Your task to perform on an android device: toggle location history Image 0: 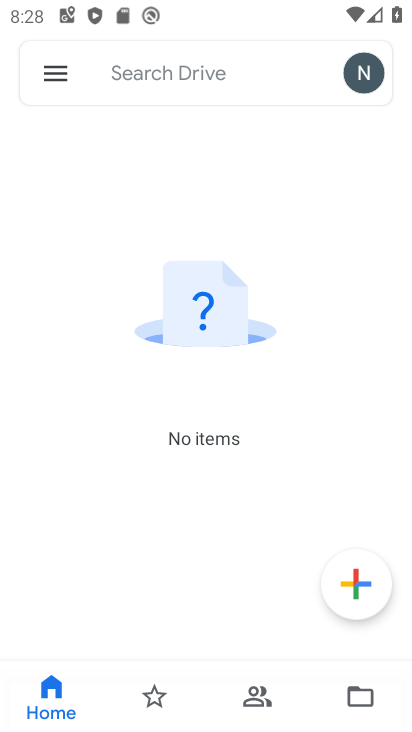
Step 0: press home button
Your task to perform on an android device: toggle location history Image 1: 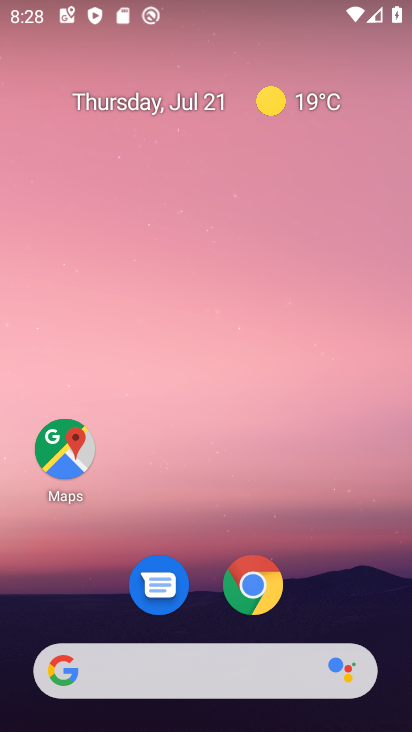
Step 1: drag from (340, 575) to (311, 38)
Your task to perform on an android device: toggle location history Image 2: 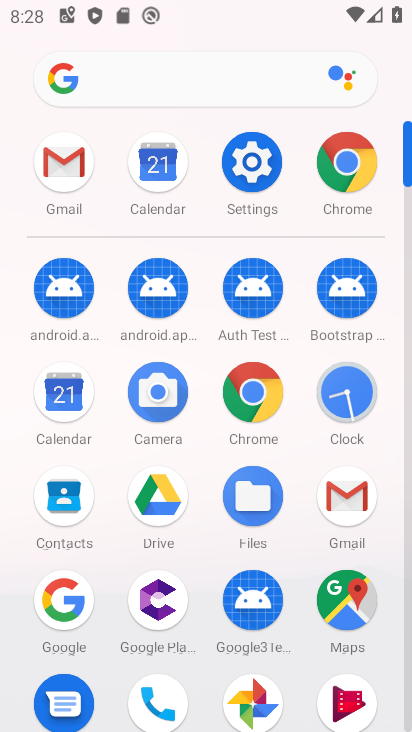
Step 2: click (265, 163)
Your task to perform on an android device: toggle location history Image 3: 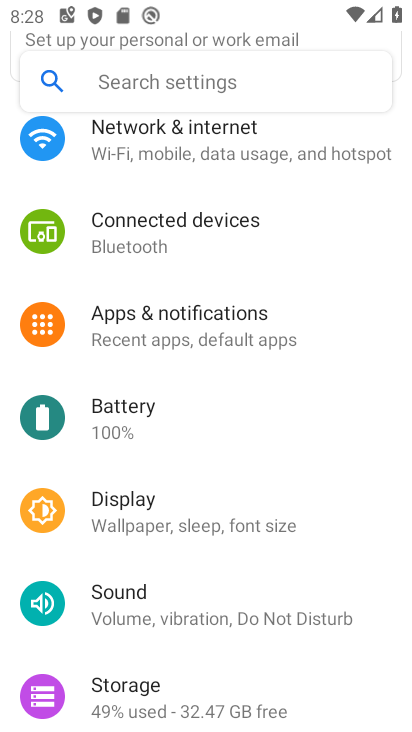
Step 3: drag from (204, 588) to (221, 172)
Your task to perform on an android device: toggle location history Image 4: 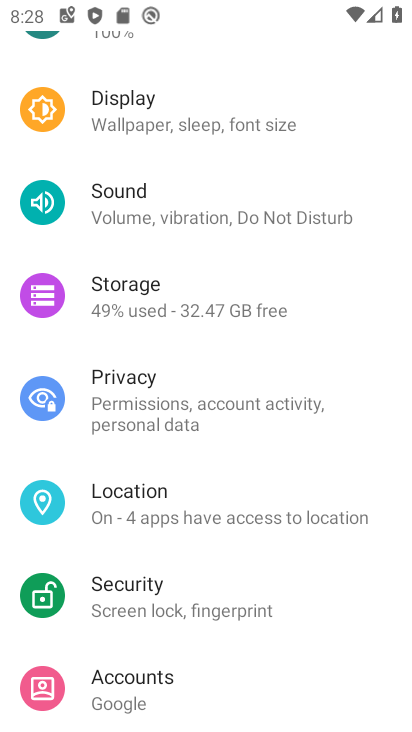
Step 4: click (188, 499)
Your task to perform on an android device: toggle location history Image 5: 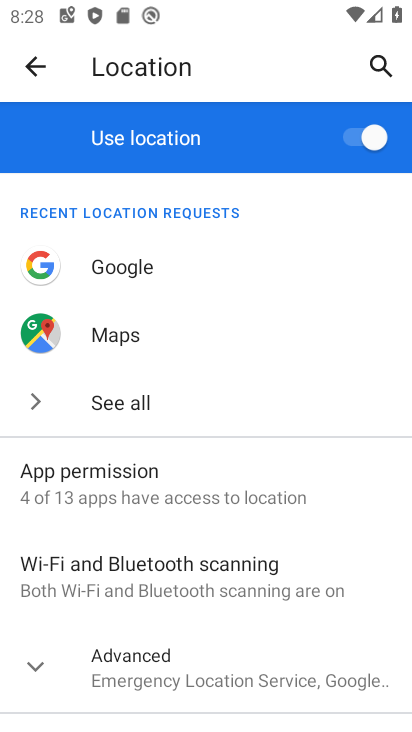
Step 5: click (30, 658)
Your task to perform on an android device: toggle location history Image 6: 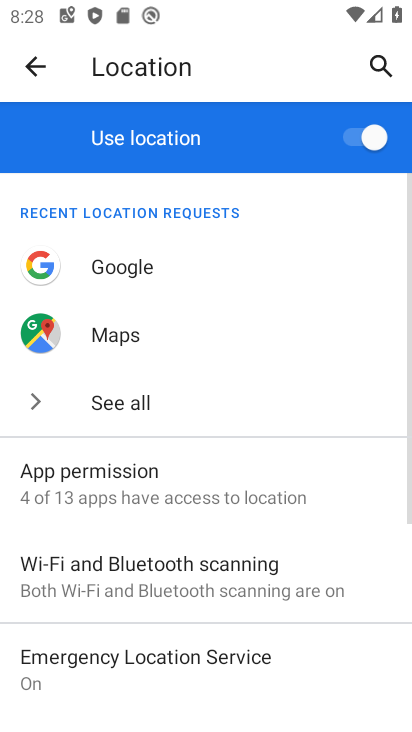
Step 6: drag from (235, 515) to (261, 207)
Your task to perform on an android device: toggle location history Image 7: 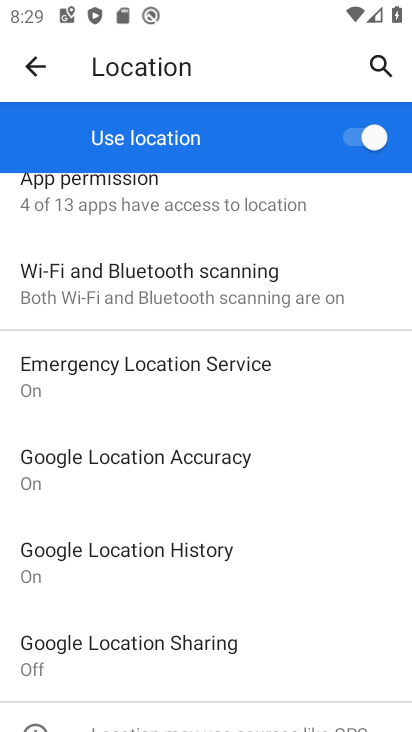
Step 7: click (187, 550)
Your task to perform on an android device: toggle location history Image 8: 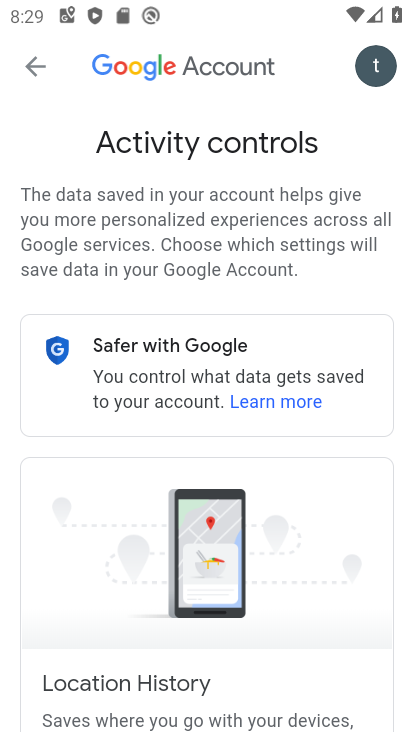
Step 8: drag from (333, 518) to (328, 479)
Your task to perform on an android device: toggle location history Image 9: 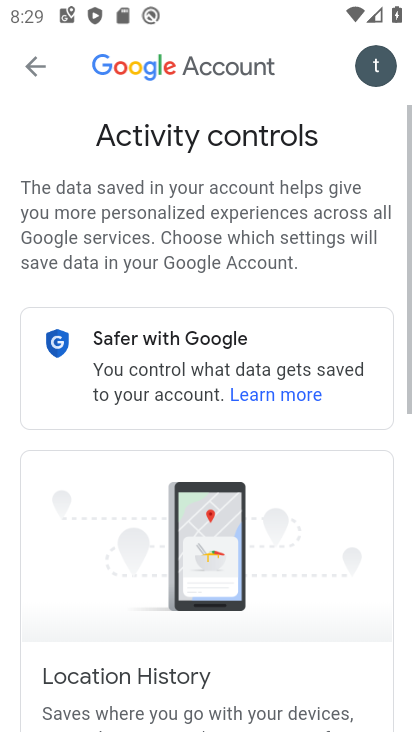
Step 9: drag from (329, 398) to (316, 230)
Your task to perform on an android device: toggle location history Image 10: 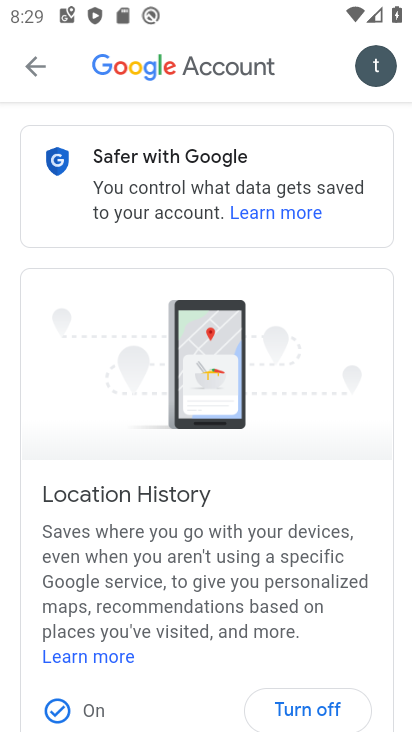
Step 10: drag from (207, 541) to (209, 306)
Your task to perform on an android device: toggle location history Image 11: 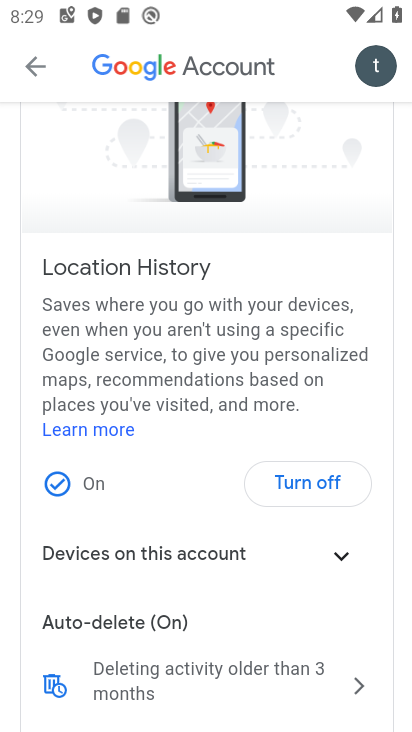
Step 11: click (285, 481)
Your task to perform on an android device: toggle location history Image 12: 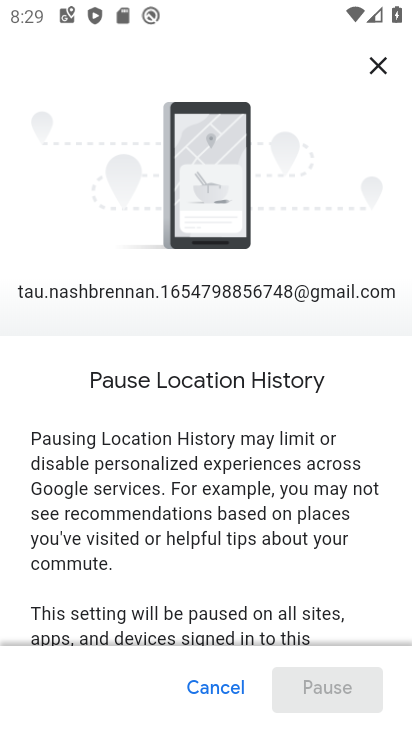
Step 12: drag from (250, 578) to (254, 25)
Your task to perform on an android device: toggle location history Image 13: 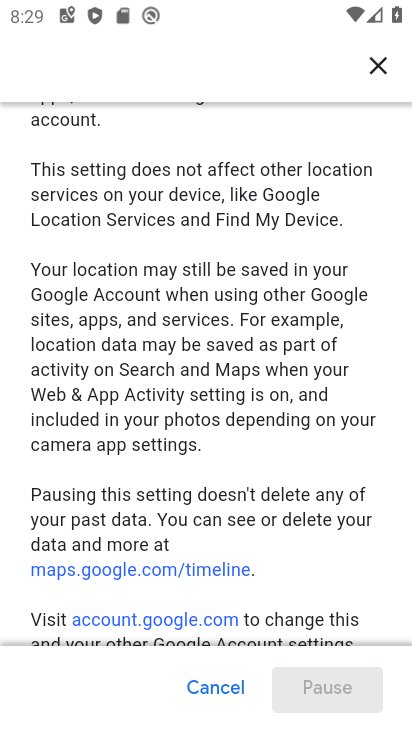
Step 13: drag from (279, 468) to (300, 160)
Your task to perform on an android device: toggle location history Image 14: 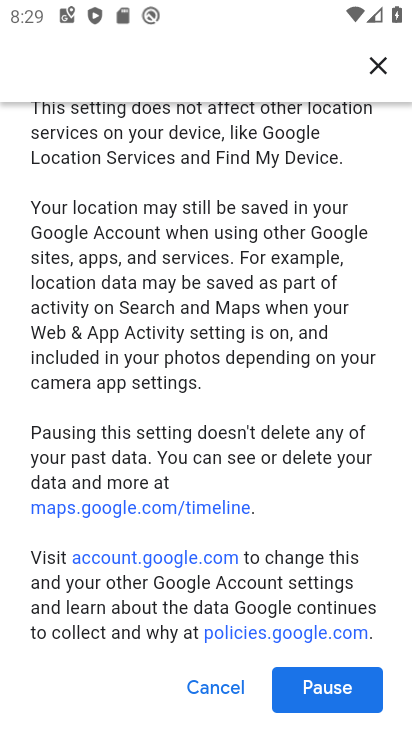
Step 14: click (351, 679)
Your task to perform on an android device: toggle location history Image 15: 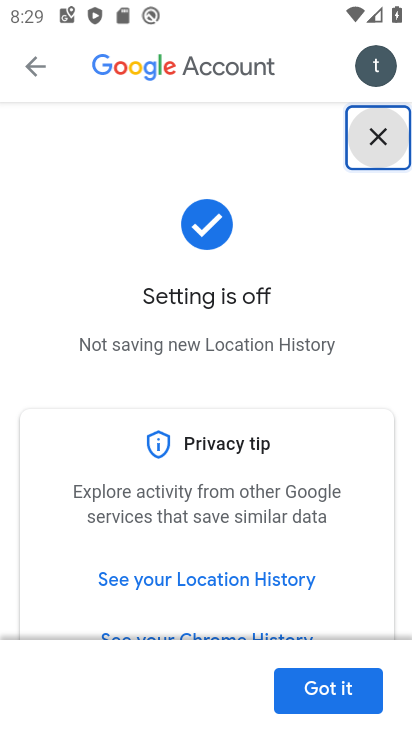
Step 15: click (350, 701)
Your task to perform on an android device: toggle location history Image 16: 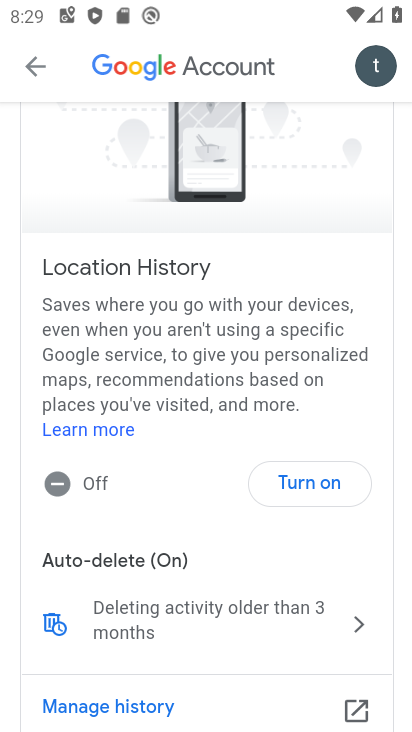
Step 16: task complete